Your task to perform on an android device: Open Android settings Image 0: 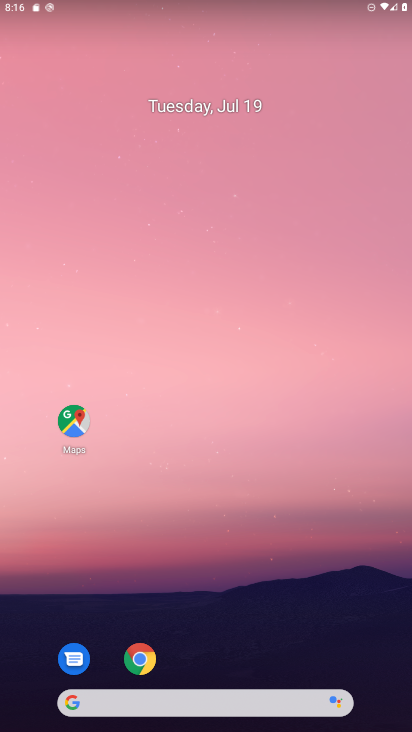
Step 0: click (241, 208)
Your task to perform on an android device: Open Android settings Image 1: 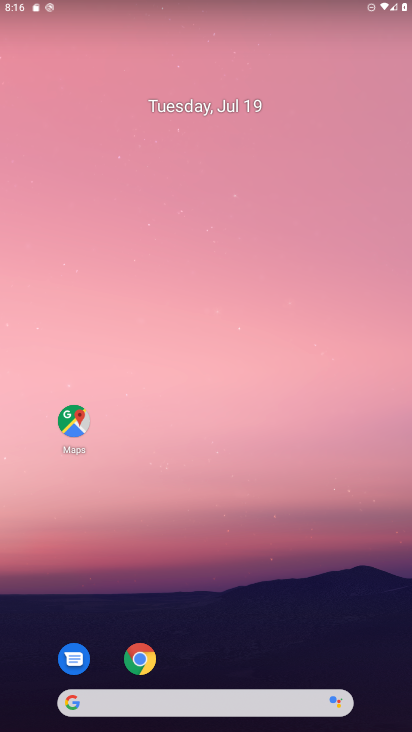
Step 1: drag from (215, 594) to (220, 209)
Your task to perform on an android device: Open Android settings Image 2: 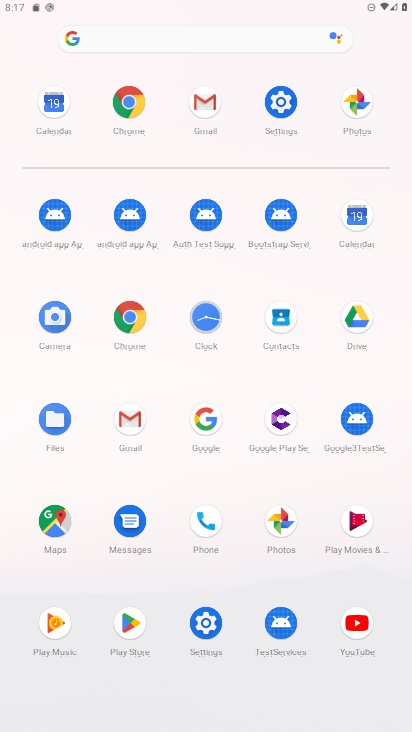
Step 2: click (285, 96)
Your task to perform on an android device: Open Android settings Image 3: 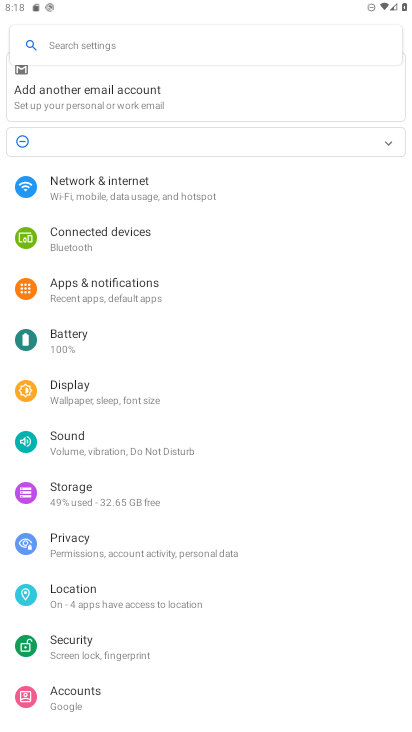
Step 3: task complete